Your task to perform on an android device: see sites visited before in the chrome app Image 0: 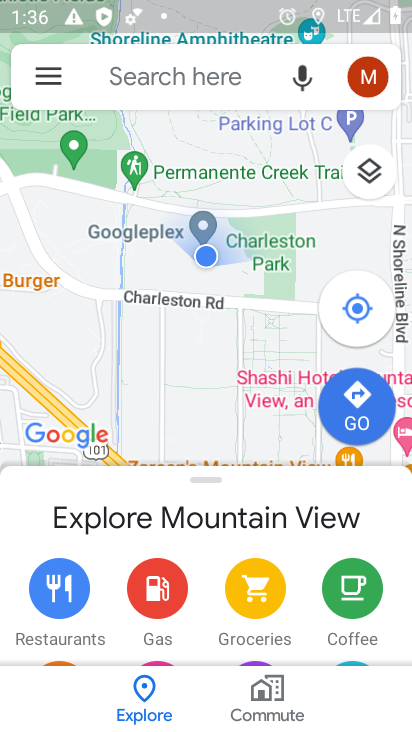
Step 0: press home button
Your task to perform on an android device: see sites visited before in the chrome app Image 1: 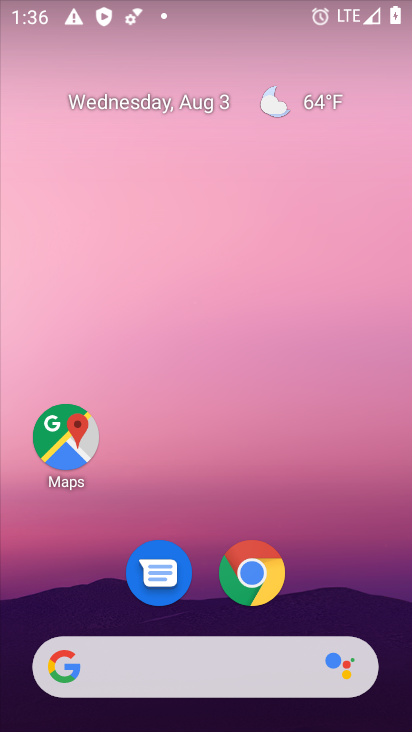
Step 1: drag from (169, 685) to (223, 34)
Your task to perform on an android device: see sites visited before in the chrome app Image 2: 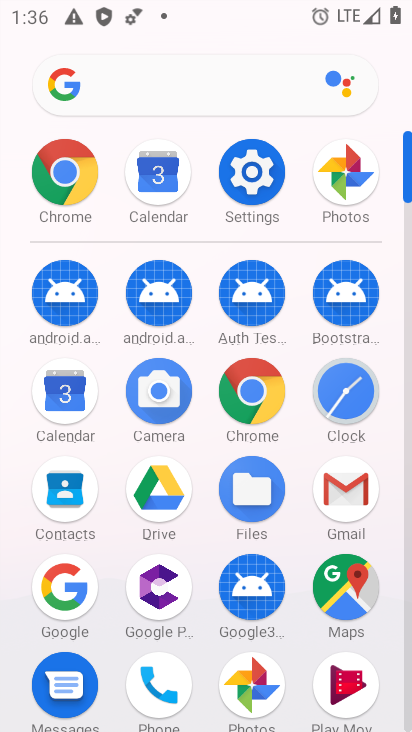
Step 2: click (270, 405)
Your task to perform on an android device: see sites visited before in the chrome app Image 3: 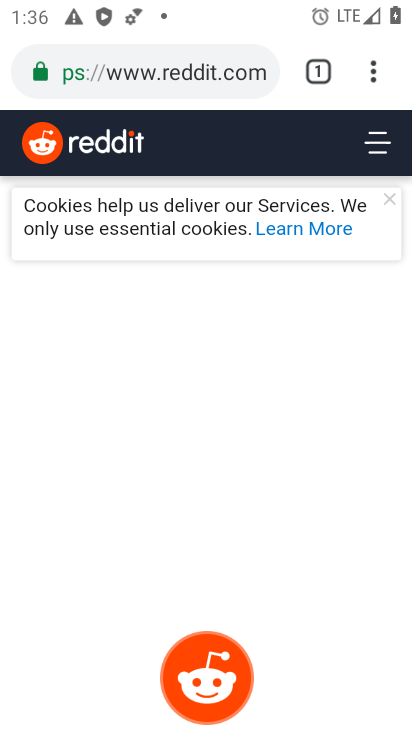
Step 3: click (382, 58)
Your task to perform on an android device: see sites visited before in the chrome app Image 4: 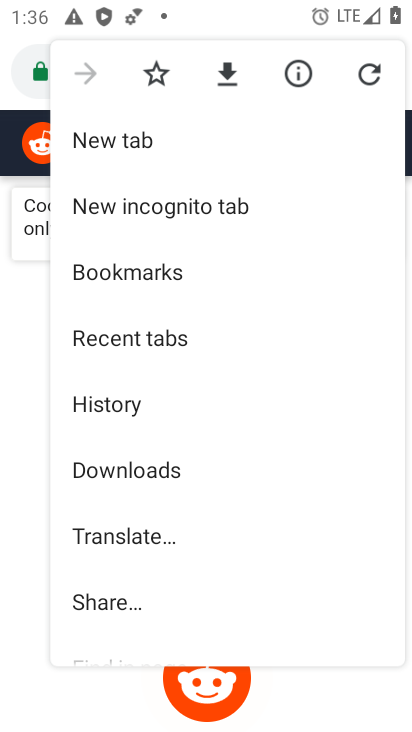
Step 4: click (126, 410)
Your task to perform on an android device: see sites visited before in the chrome app Image 5: 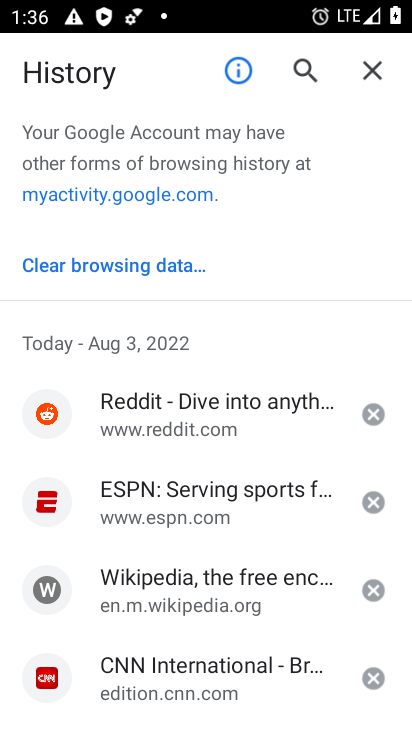
Step 5: task complete